Your task to perform on an android device: Add bose quietcomfort 35 to the cart on newegg.com Image 0: 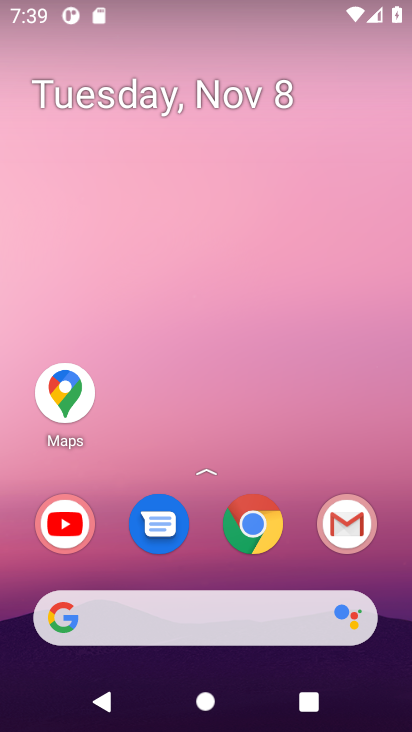
Step 0: click (254, 541)
Your task to perform on an android device: Add bose quietcomfort 35 to the cart on newegg.com Image 1: 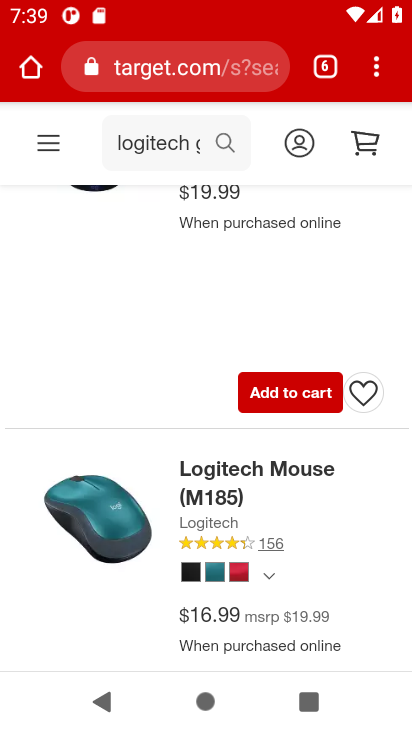
Step 1: click (205, 71)
Your task to perform on an android device: Add bose quietcomfort 35 to the cart on newegg.com Image 2: 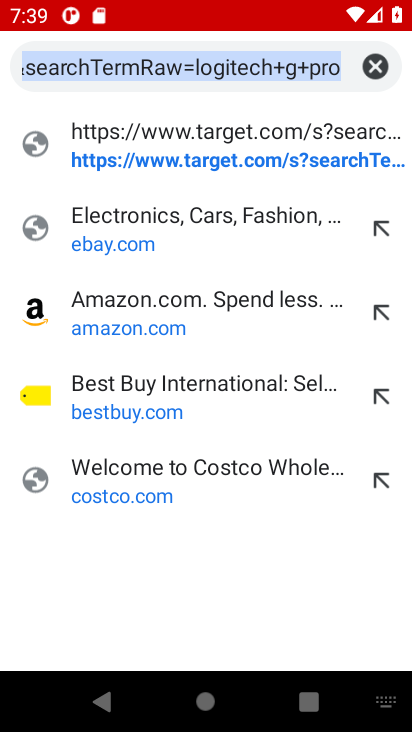
Step 2: type "newegg.com"
Your task to perform on an android device: Add bose quietcomfort 35 to the cart on newegg.com Image 3: 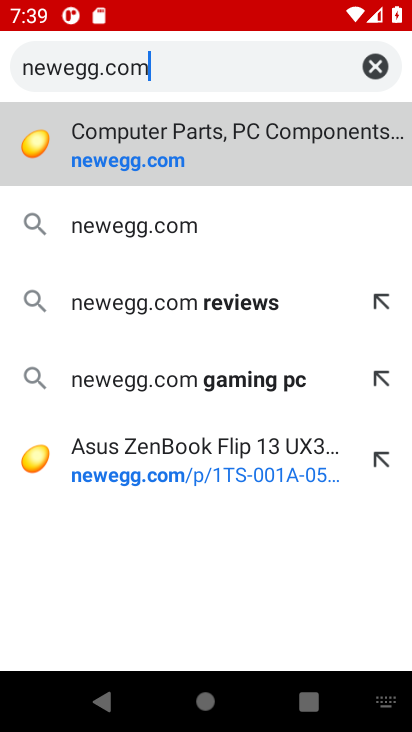
Step 3: click (130, 164)
Your task to perform on an android device: Add bose quietcomfort 35 to the cart on newegg.com Image 4: 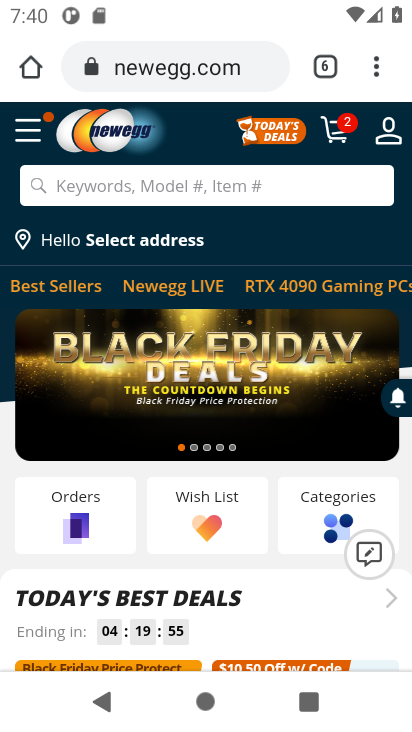
Step 4: click (185, 186)
Your task to perform on an android device: Add bose quietcomfort 35 to the cart on newegg.com Image 5: 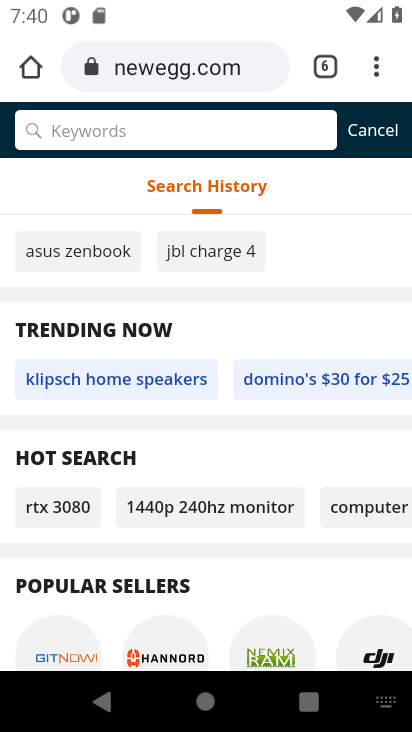
Step 5: type "bose quietcomfort 35"
Your task to perform on an android device: Add bose quietcomfort 35 to the cart on newegg.com Image 6: 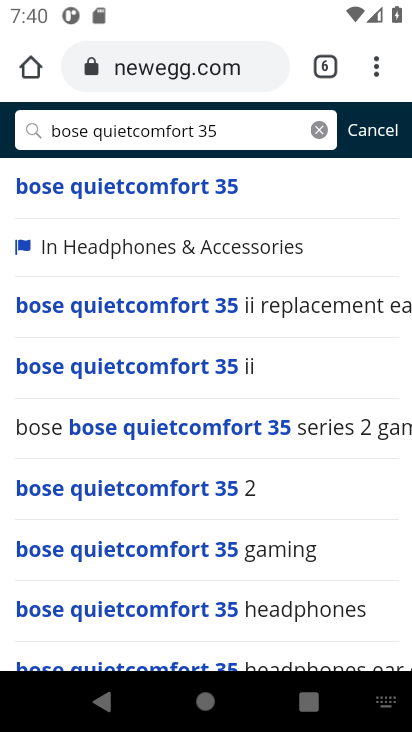
Step 6: click (116, 195)
Your task to perform on an android device: Add bose quietcomfort 35 to the cart on newegg.com Image 7: 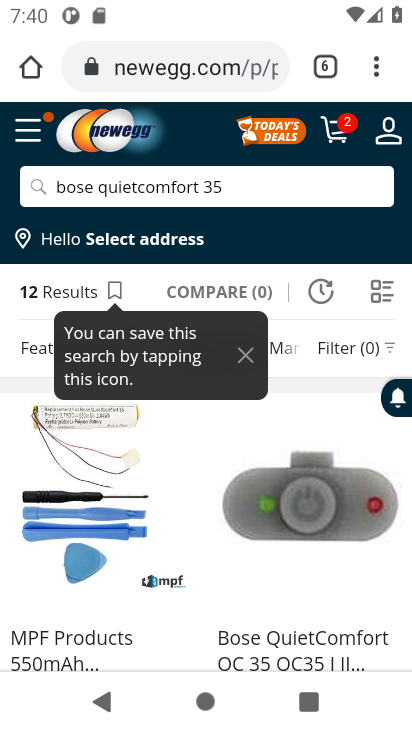
Step 7: drag from (192, 615) to (236, 391)
Your task to perform on an android device: Add bose quietcomfort 35 to the cart on newegg.com Image 8: 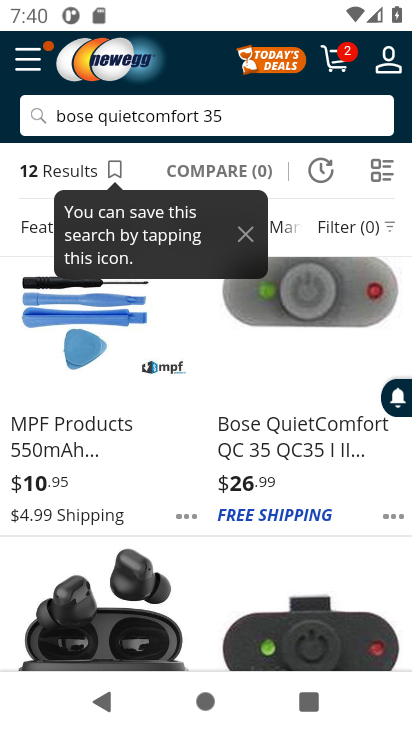
Step 8: drag from (179, 566) to (180, 412)
Your task to perform on an android device: Add bose quietcomfort 35 to the cart on newegg.com Image 9: 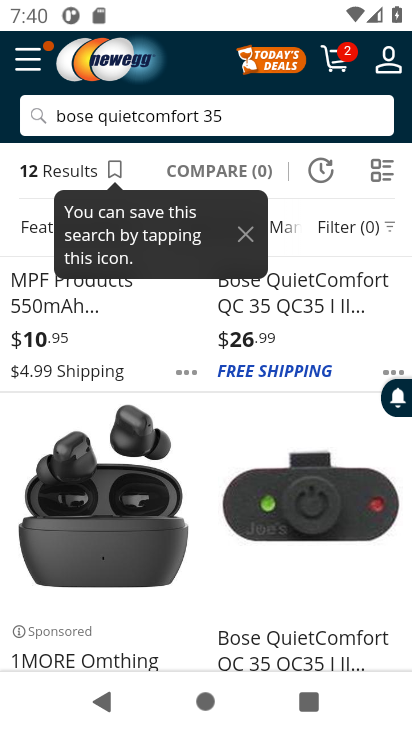
Step 9: drag from (207, 581) to (205, 408)
Your task to perform on an android device: Add bose quietcomfort 35 to the cart on newegg.com Image 10: 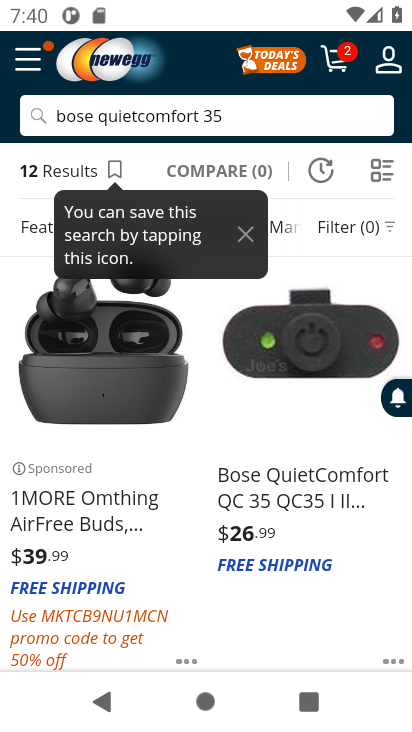
Step 10: drag from (172, 609) to (182, 391)
Your task to perform on an android device: Add bose quietcomfort 35 to the cart on newegg.com Image 11: 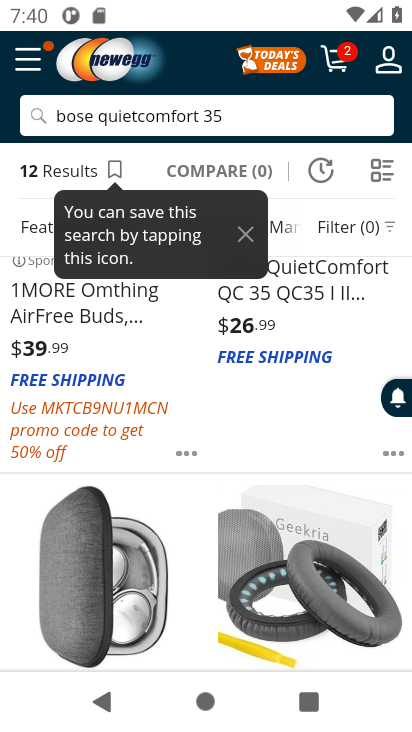
Step 11: drag from (182, 530) to (205, 727)
Your task to perform on an android device: Add bose quietcomfort 35 to the cart on newegg.com Image 12: 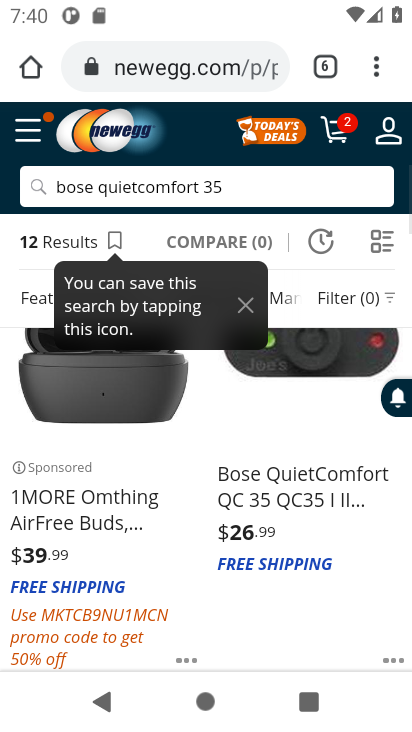
Step 12: drag from (180, 449) to (165, 683)
Your task to perform on an android device: Add bose quietcomfort 35 to the cart on newegg.com Image 13: 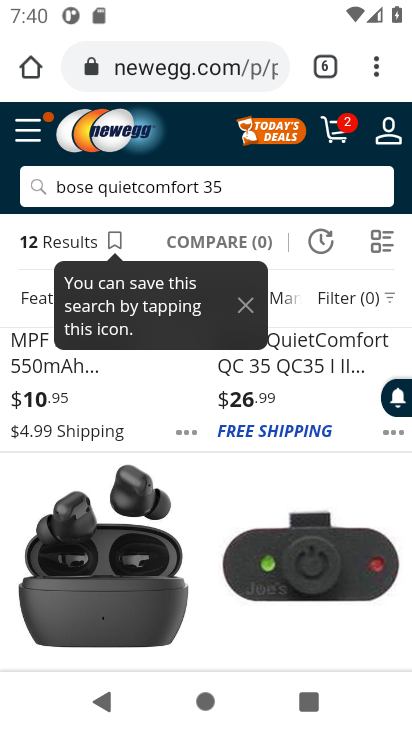
Step 13: drag from (194, 427) to (186, 625)
Your task to perform on an android device: Add bose quietcomfort 35 to the cart on newegg.com Image 14: 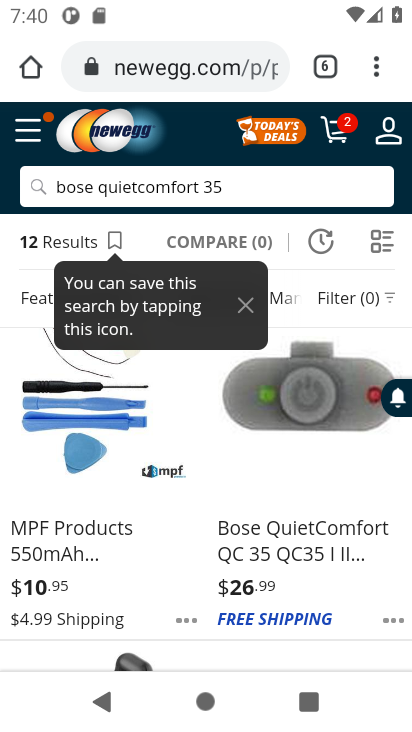
Step 14: click (300, 444)
Your task to perform on an android device: Add bose quietcomfort 35 to the cart on newegg.com Image 15: 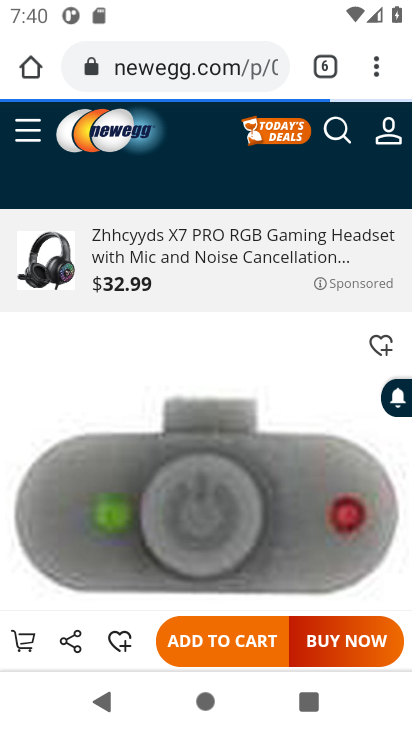
Step 15: click (308, 387)
Your task to perform on an android device: Add bose quietcomfort 35 to the cart on newegg.com Image 16: 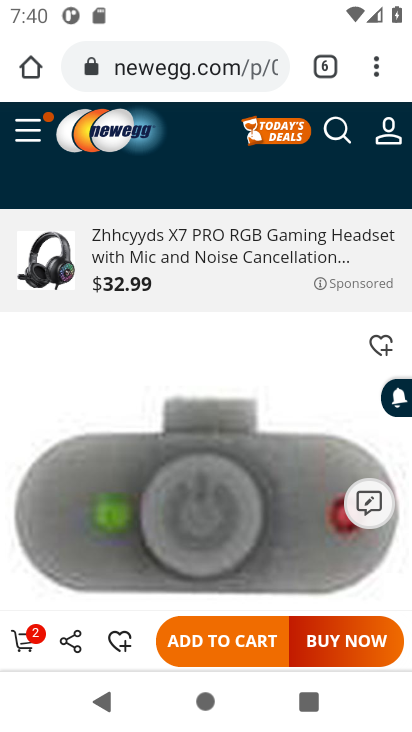
Step 16: click (221, 656)
Your task to perform on an android device: Add bose quietcomfort 35 to the cart on newegg.com Image 17: 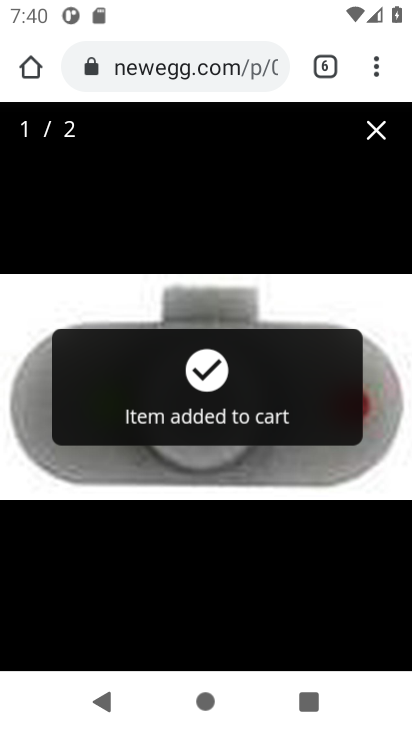
Step 17: click (385, 136)
Your task to perform on an android device: Add bose quietcomfort 35 to the cart on newegg.com Image 18: 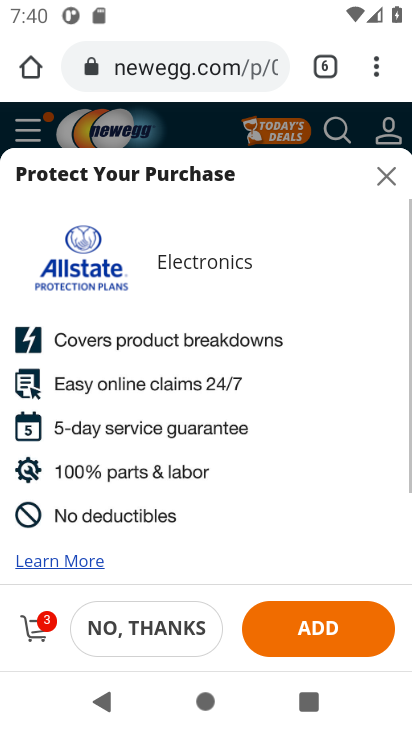
Step 18: task complete